Your task to perform on an android device: Go to internet settings Image 0: 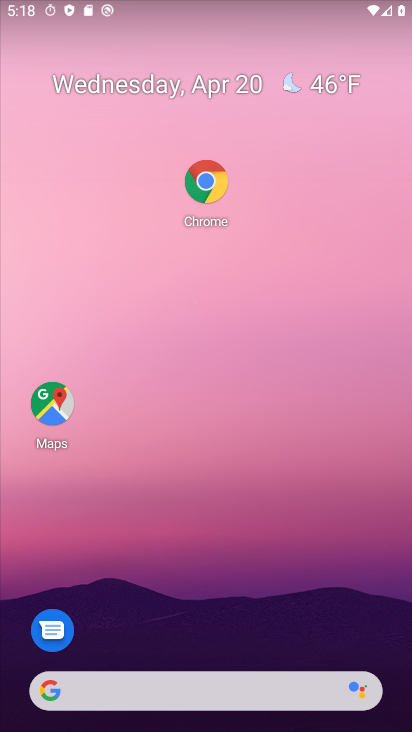
Step 0: drag from (195, 657) to (239, 394)
Your task to perform on an android device: Go to internet settings Image 1: 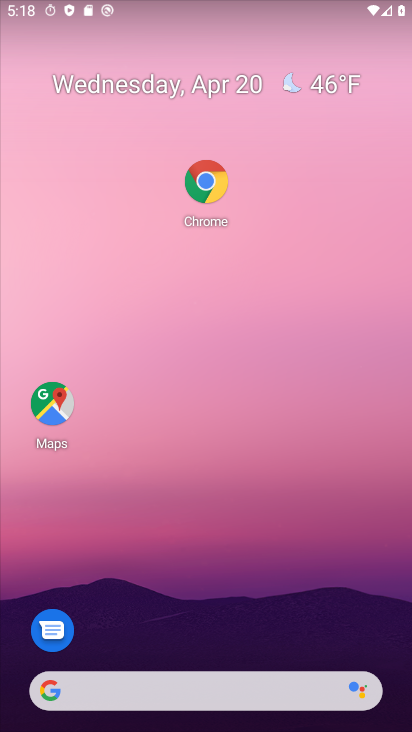
Step 1: drag from (280, 665) to (344, 405)
Your task to perform on an android device: Go to internet settings Image 2: 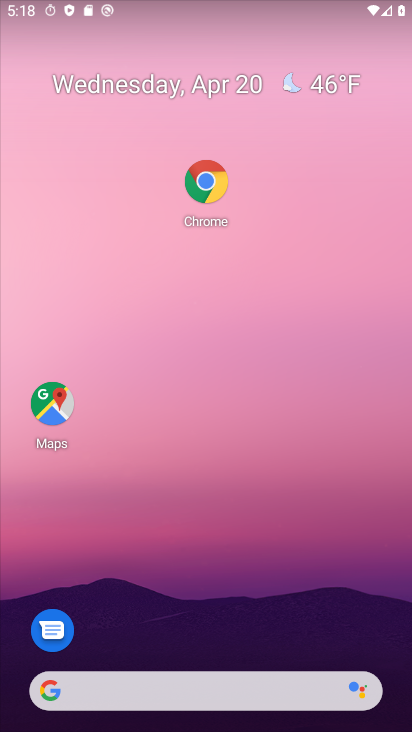
Step 2: drag from (203, 634) to (303, 136)
Your task to perform on an android device: Go to internet settings Image 3: 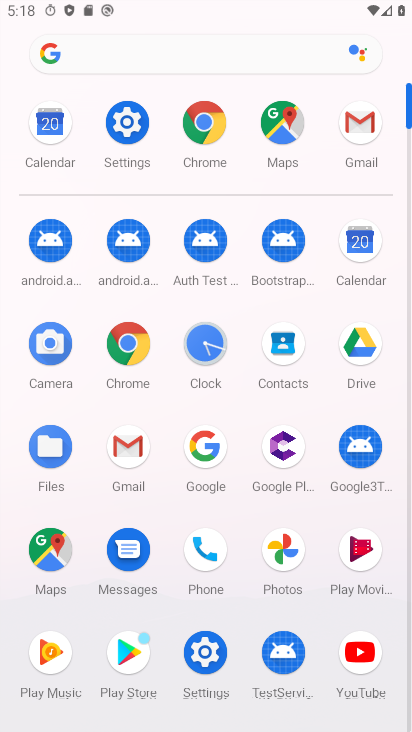
Step 3: click (135, 122)
Your task to perform on an android device: Go to internet settings Image 4: 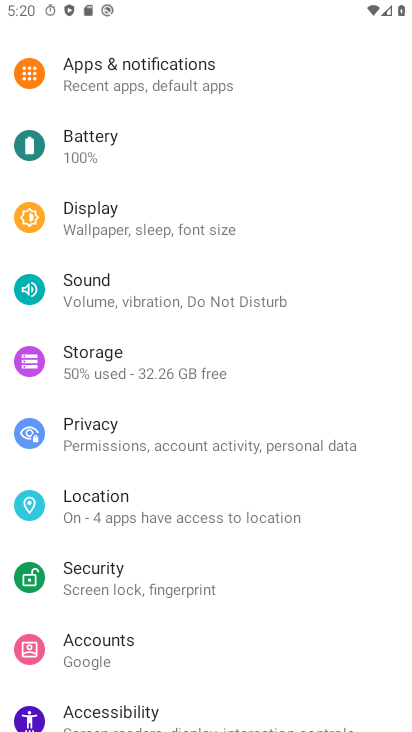
Step 4: drag from (119, 82) to (181, 522)
Your task to perform on an android device: Go to internet settings Image 5: 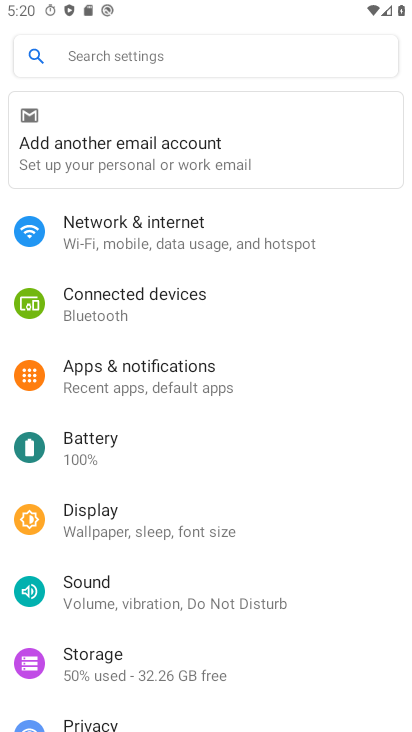
Step 5: click (124, 228)
Your task to perform on an android device: Go to internet settings Image 6: 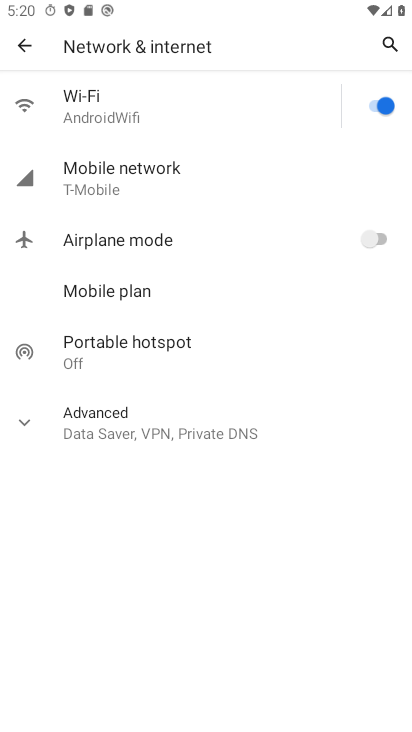
Step 6: click (131, 429)
Your task to perform on an android device: Go to internet settings Image 7: 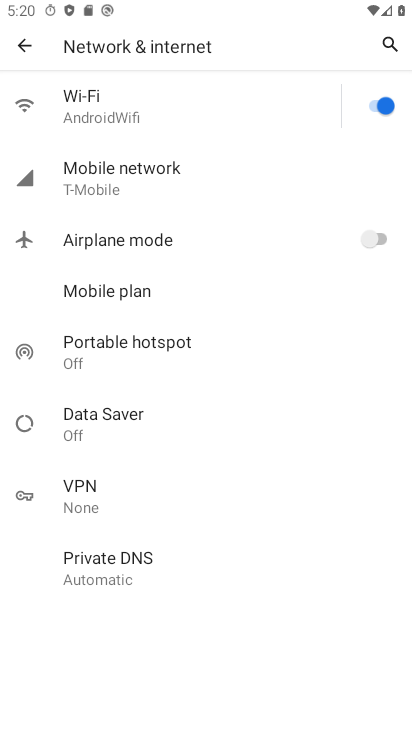
Step 7: task complete